Your task to perform on an android device: Open Android settings Image 0: 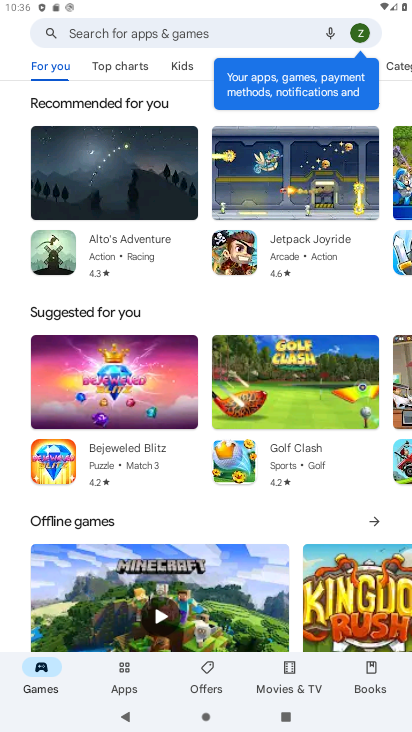
Step 0: press home button
Your task to perform on an android device: Open Android settings Image 1: 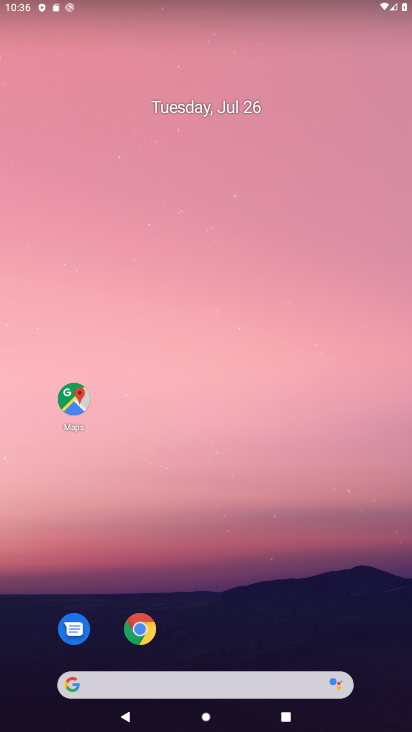
Step 1: drag from (378, 695) to (180, 28)
Your task to perform on an android device: Open Android settings Image 2: 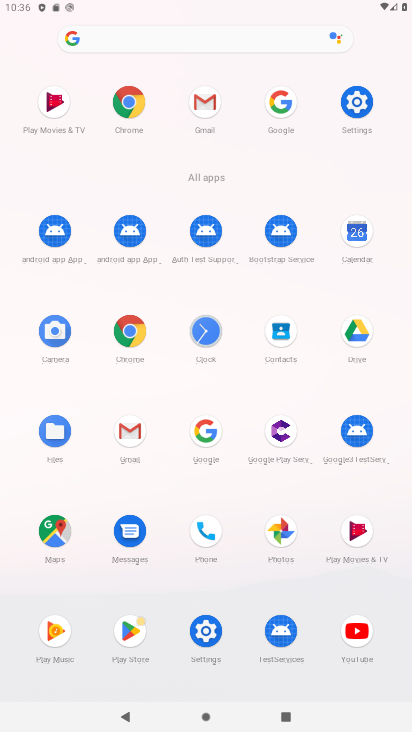
Step 2: click (209, 624)
Your task to perform on an android device: Open Android settings Image 3: 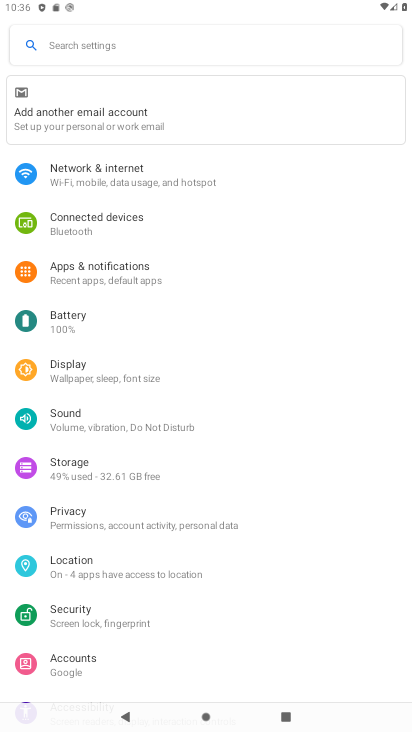
Step 3: task complete